Your task to perform on an android device: snooze an email in the gmail app Image 0: 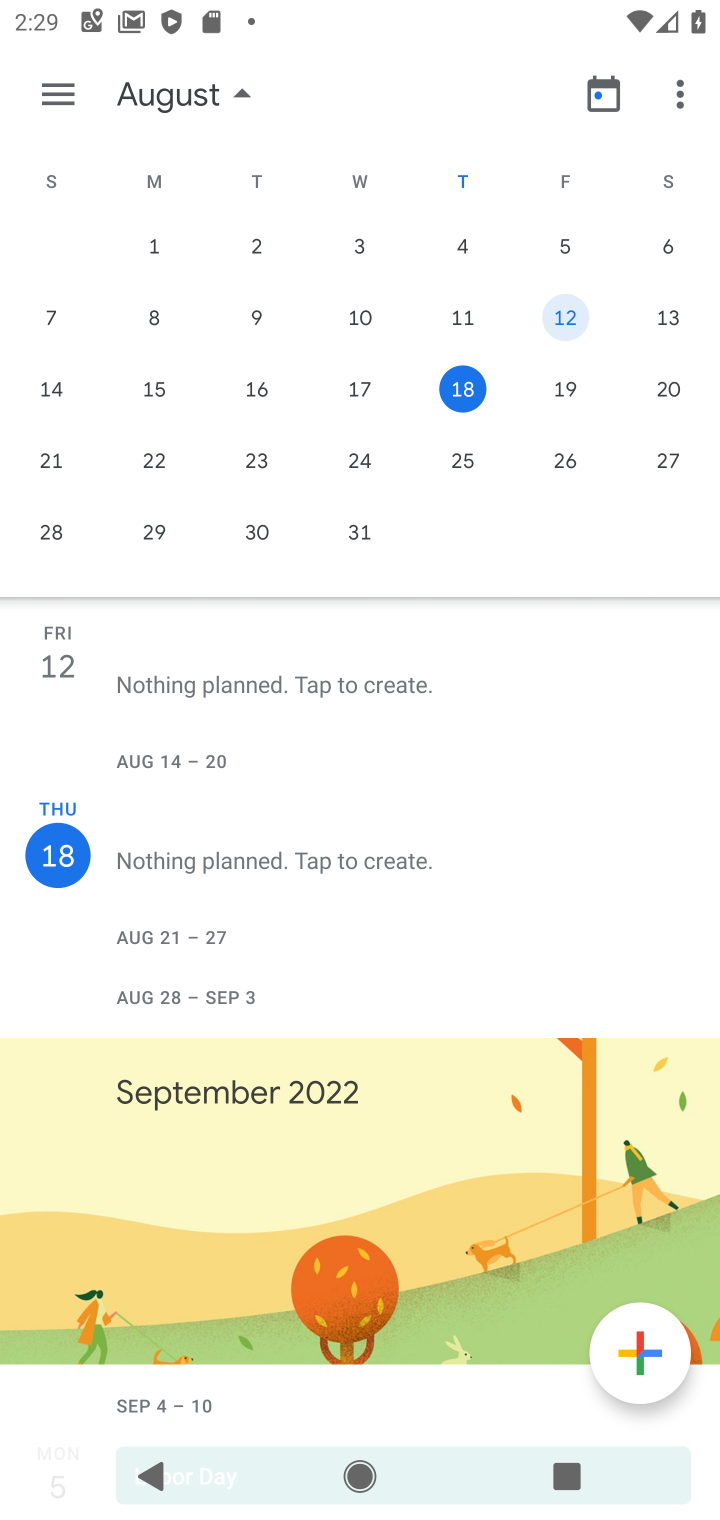
Step 0: press home button
Your task to perform on an android device: snooze an email in the gmail app Image 1: 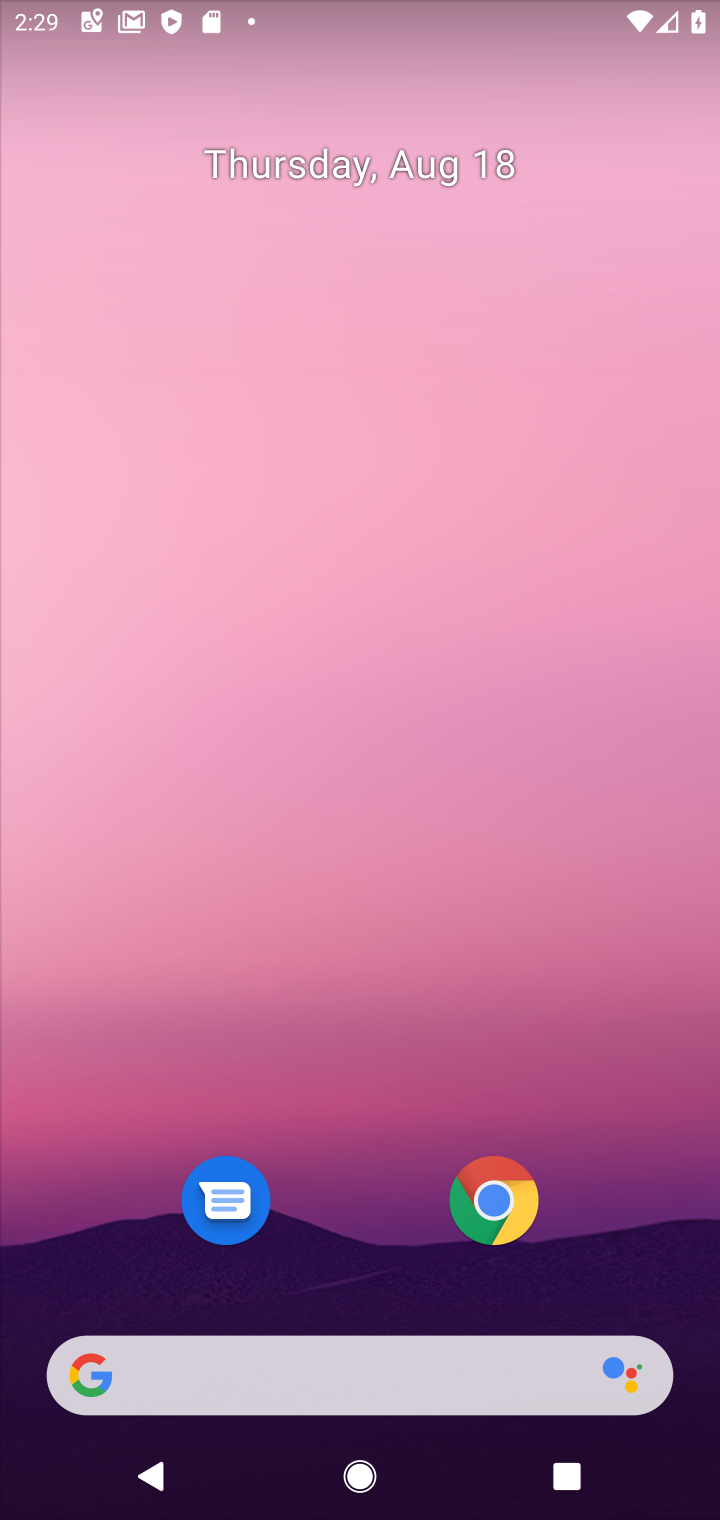
Step 1: drag from (410, 1145) to (540, 43)
Your task to perform on an android device: snooze an email in the gmail app Image 2: 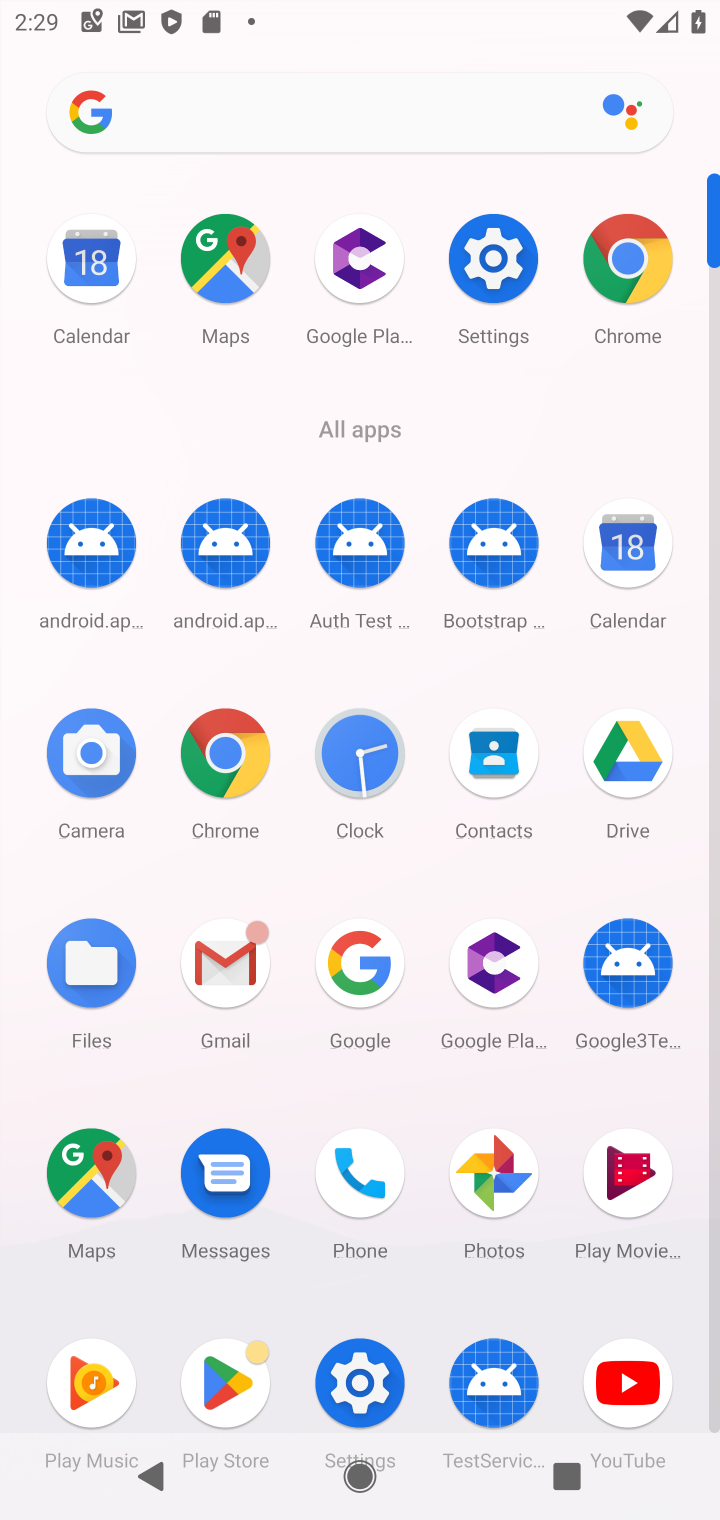
Step 2: click (220, 945)
Your task to perform on an android device: snooze an email in the gmail app Image 3: 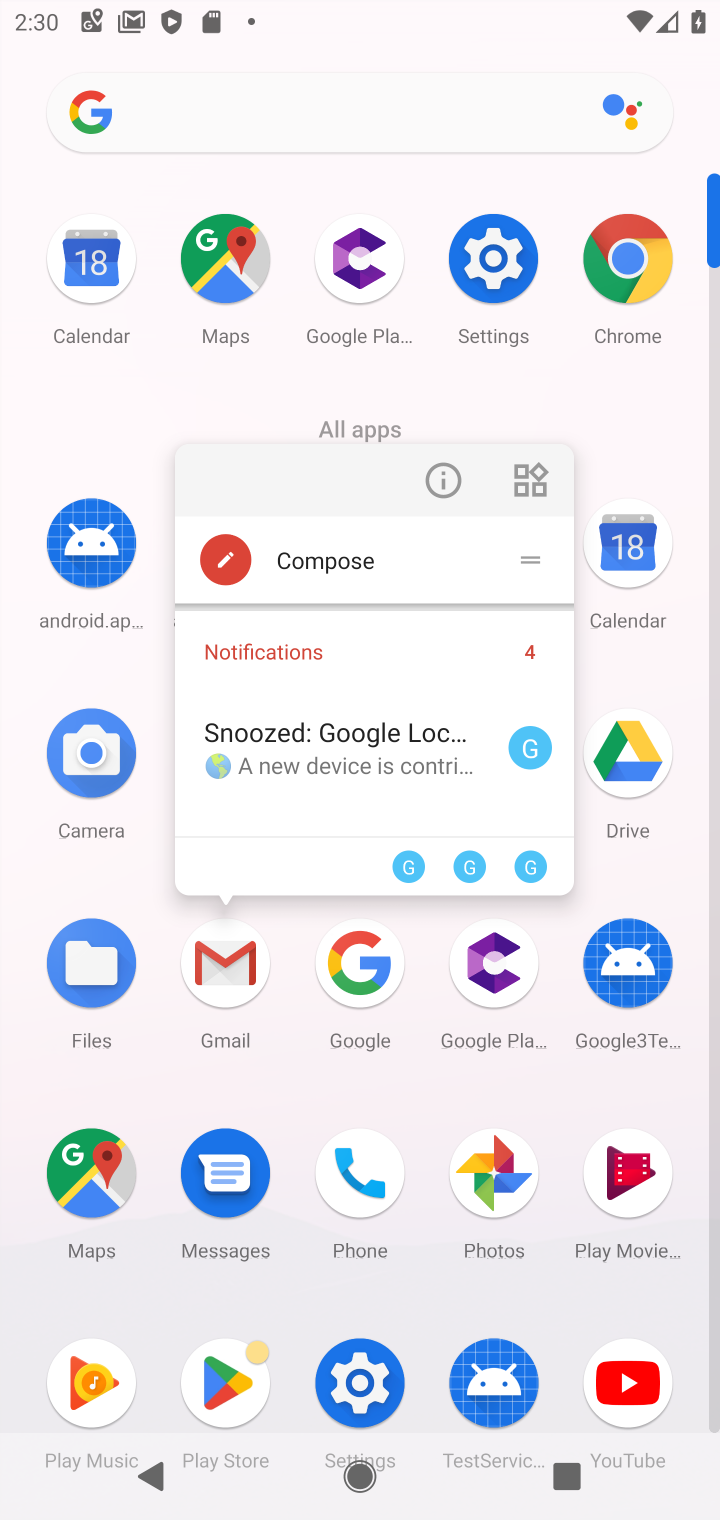
Step 3: click (593, 393)
Your task to perform on an android device: snooze an email in the gmail app Image 4: 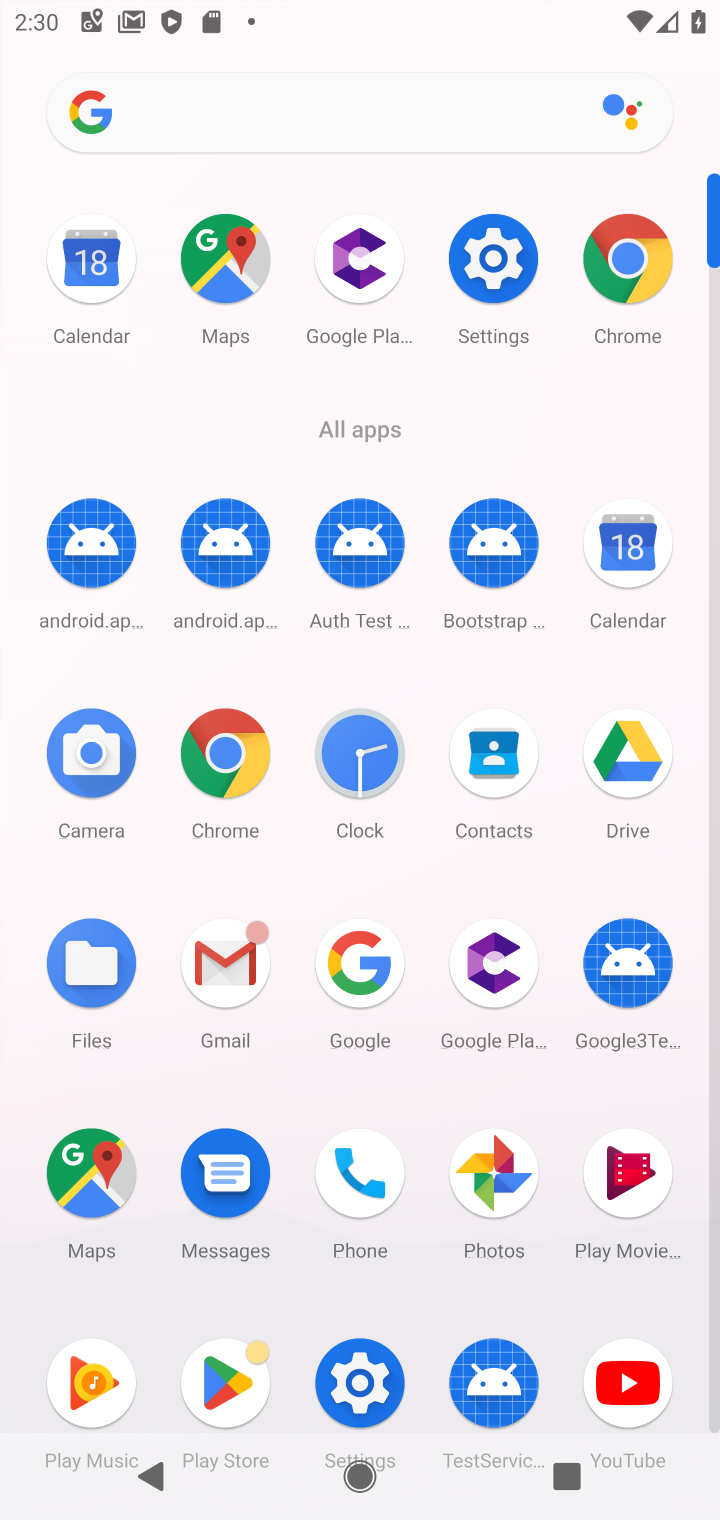
Step 4: click (243, 957)
Your task to perform on an android device: snooze an email in the gmail app Image 5: 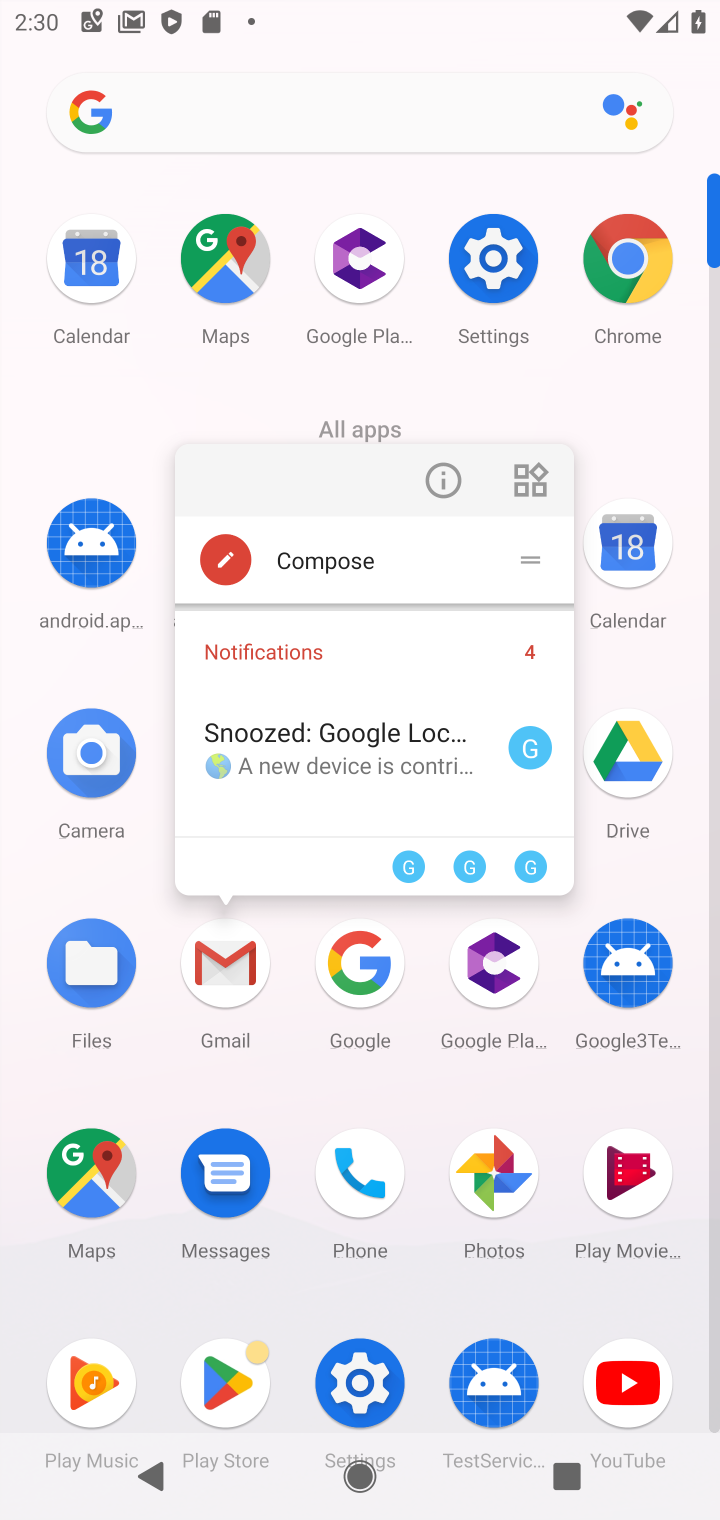
Step 5: click (240, 945)
Your task to perform on an android device: snooze an email in the gmail app Image 6: 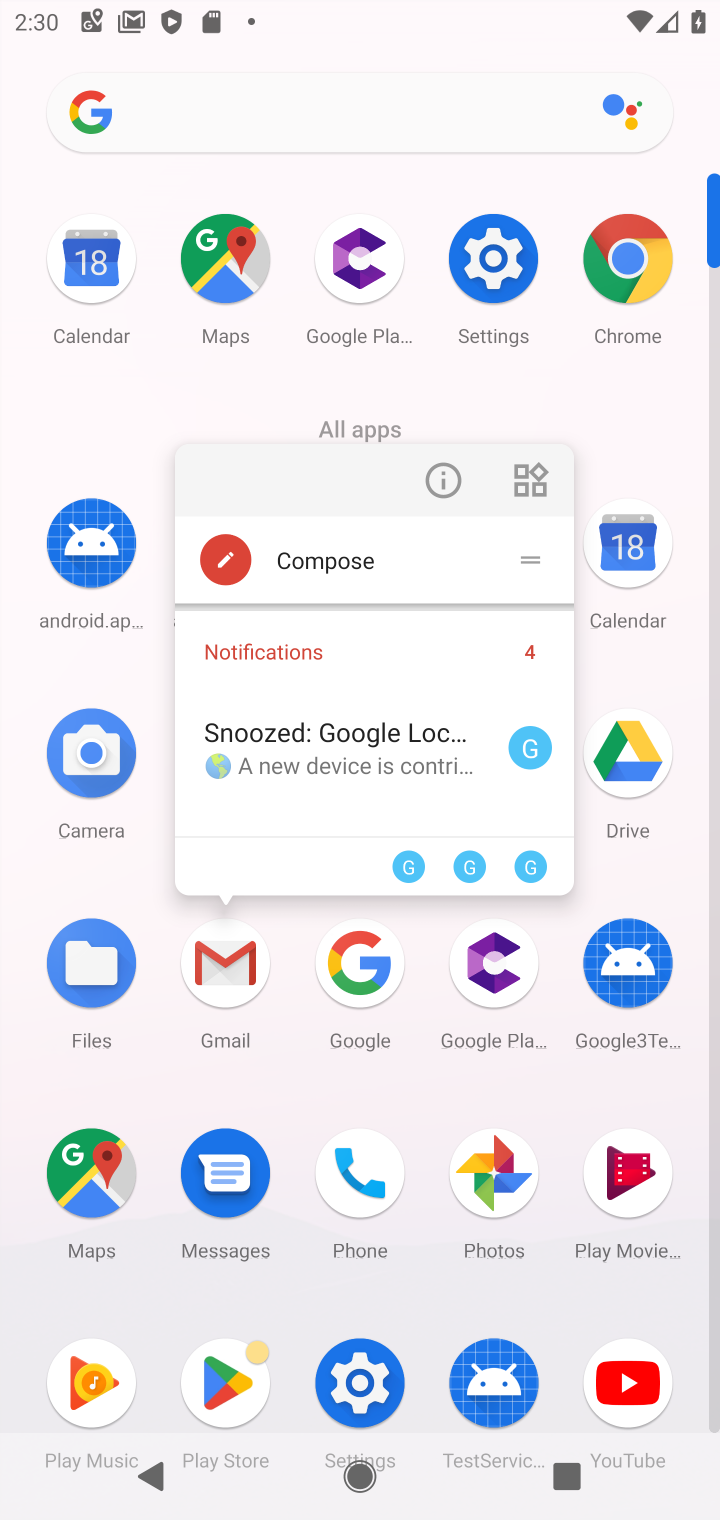
Step 6: click (240, 945)
Your task to perform on an android device: snooze an email in the gmail app Image 7: 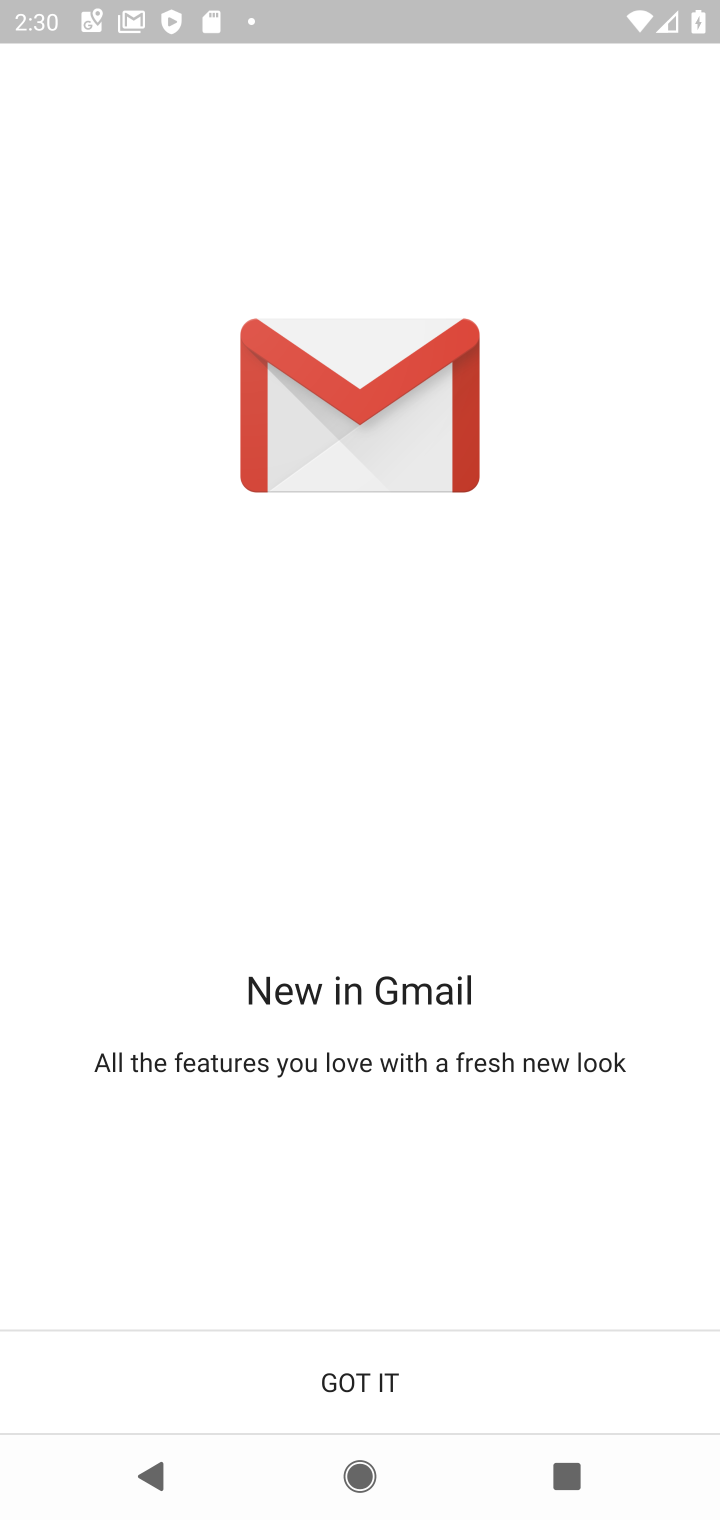
Step 7: click (436, 1377)
Your task to perform on an android device: snooze an email in the gmail app Image 8: 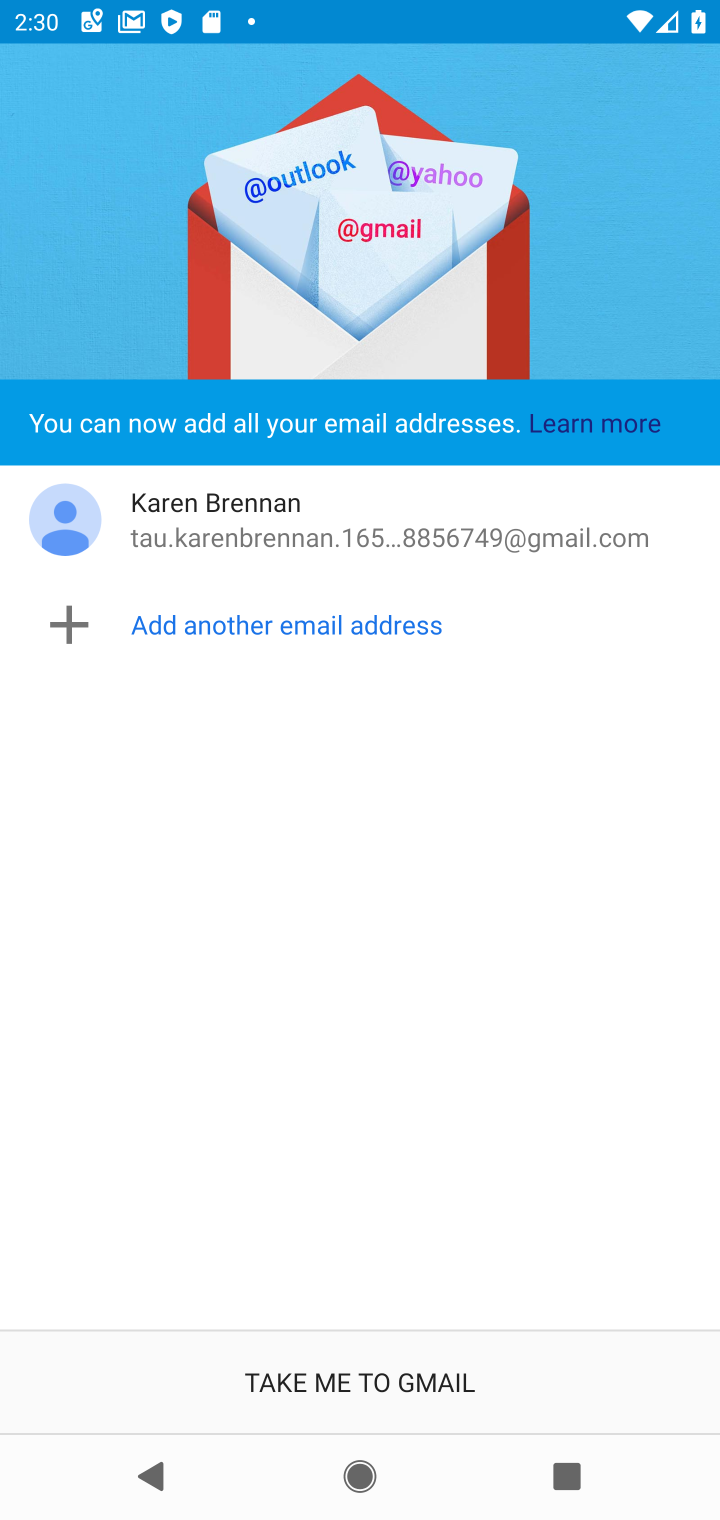
Step 8: click (501, 1375)
Your task to perform on an android device: snooze an email in the gmail app Image 9: 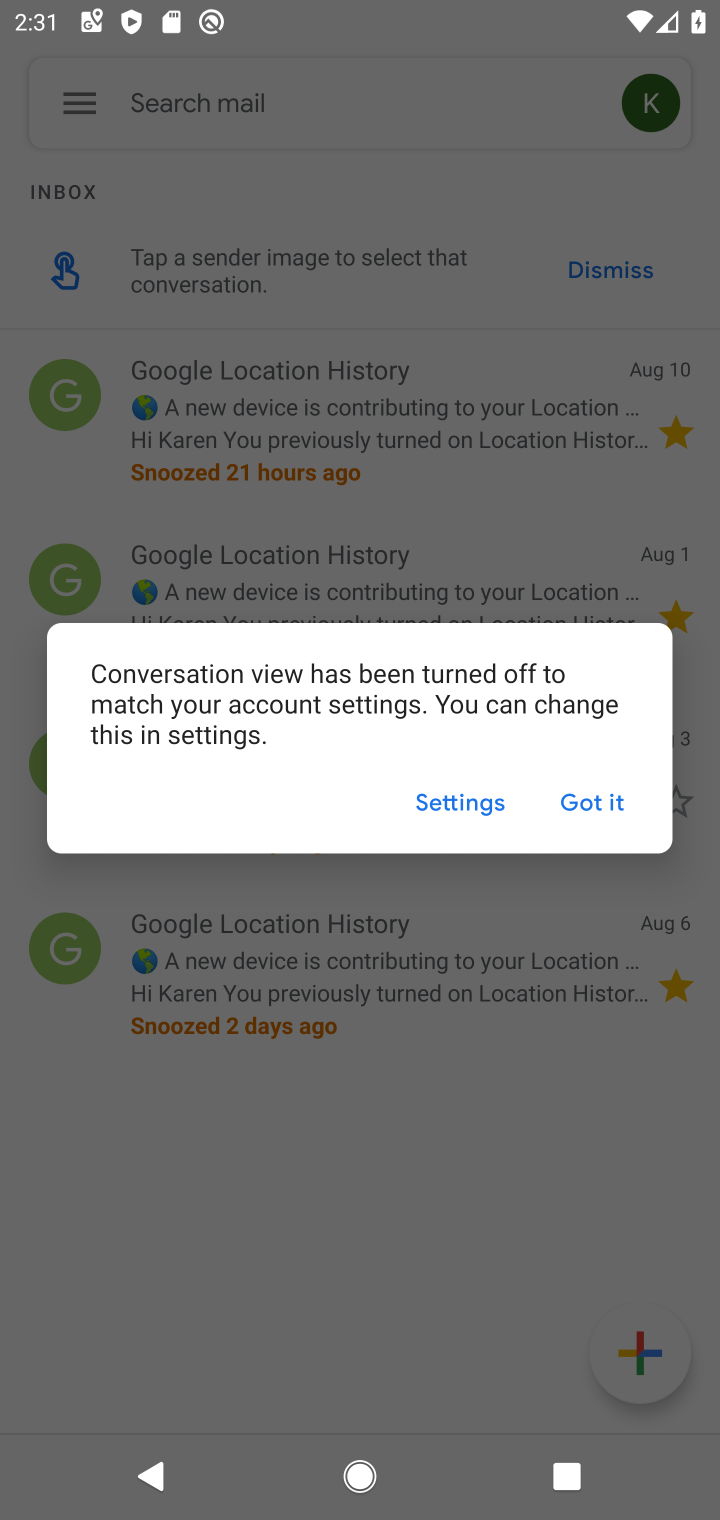
Step 9: click (621, 808)
Your task to perform on an android device: snooze an email in the gmail app Image 10: 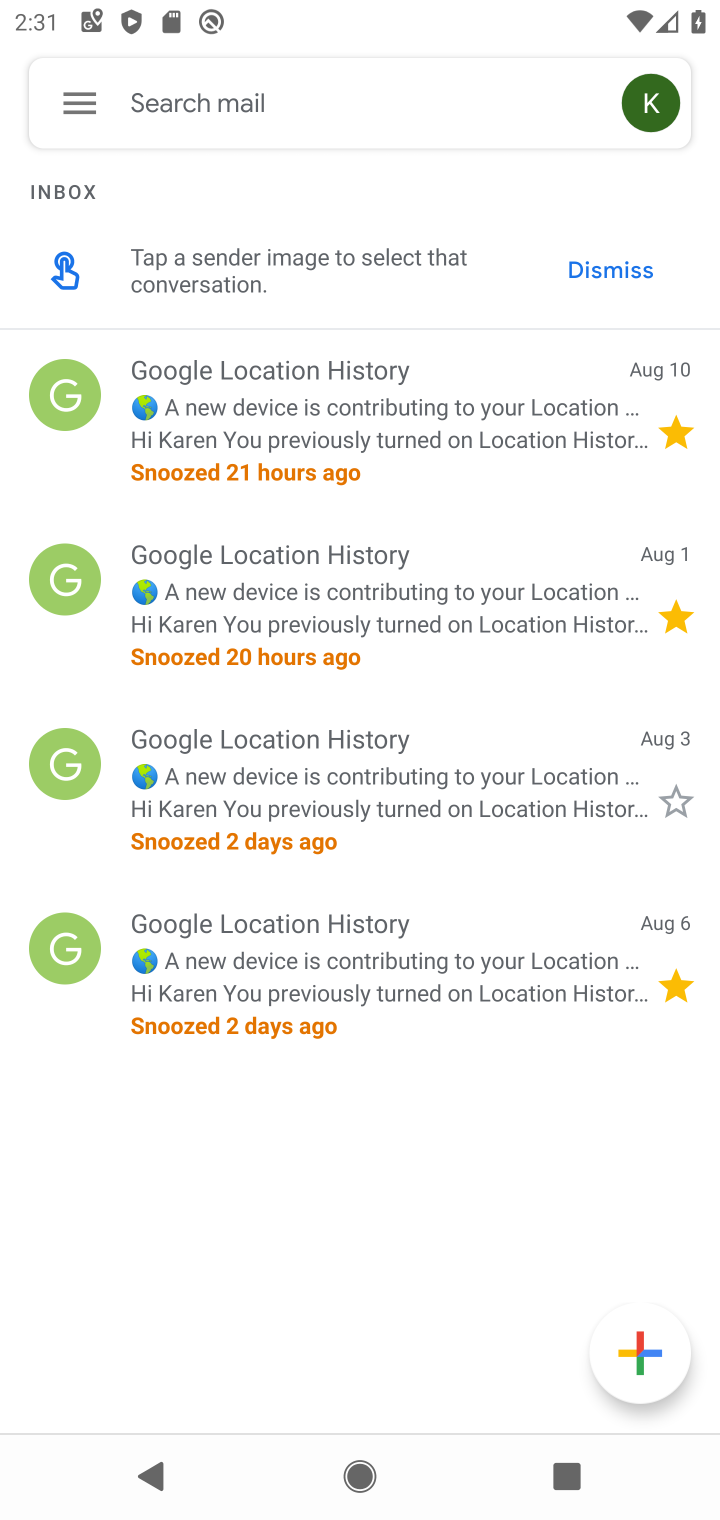
Step 10: click (80, 100)
Your task to perform on an android device: snooze an email in the gmail app Image 11: 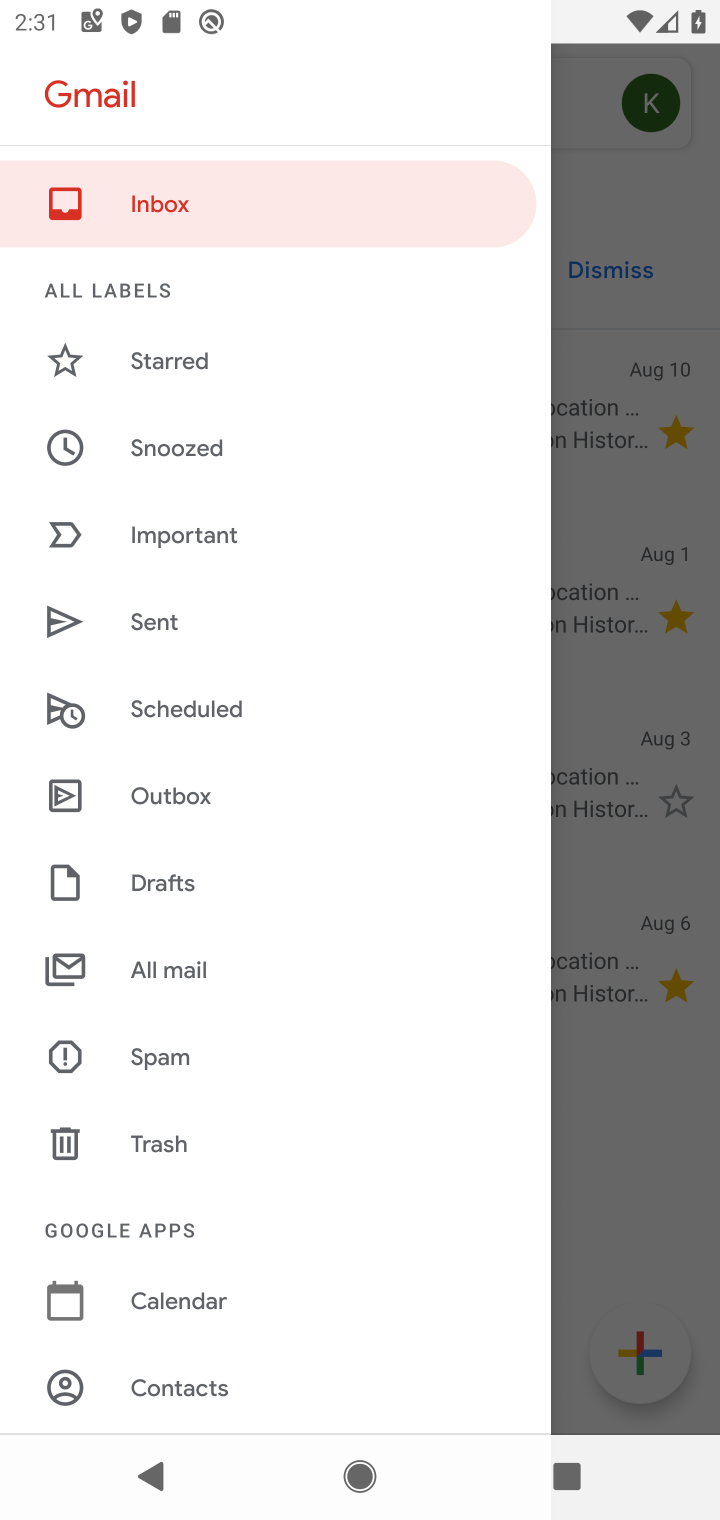
Step 11: drag from (327, 1166) to (260, 1037)
Your task to perform on an android device: snooze an email in the gmail app Image 12: 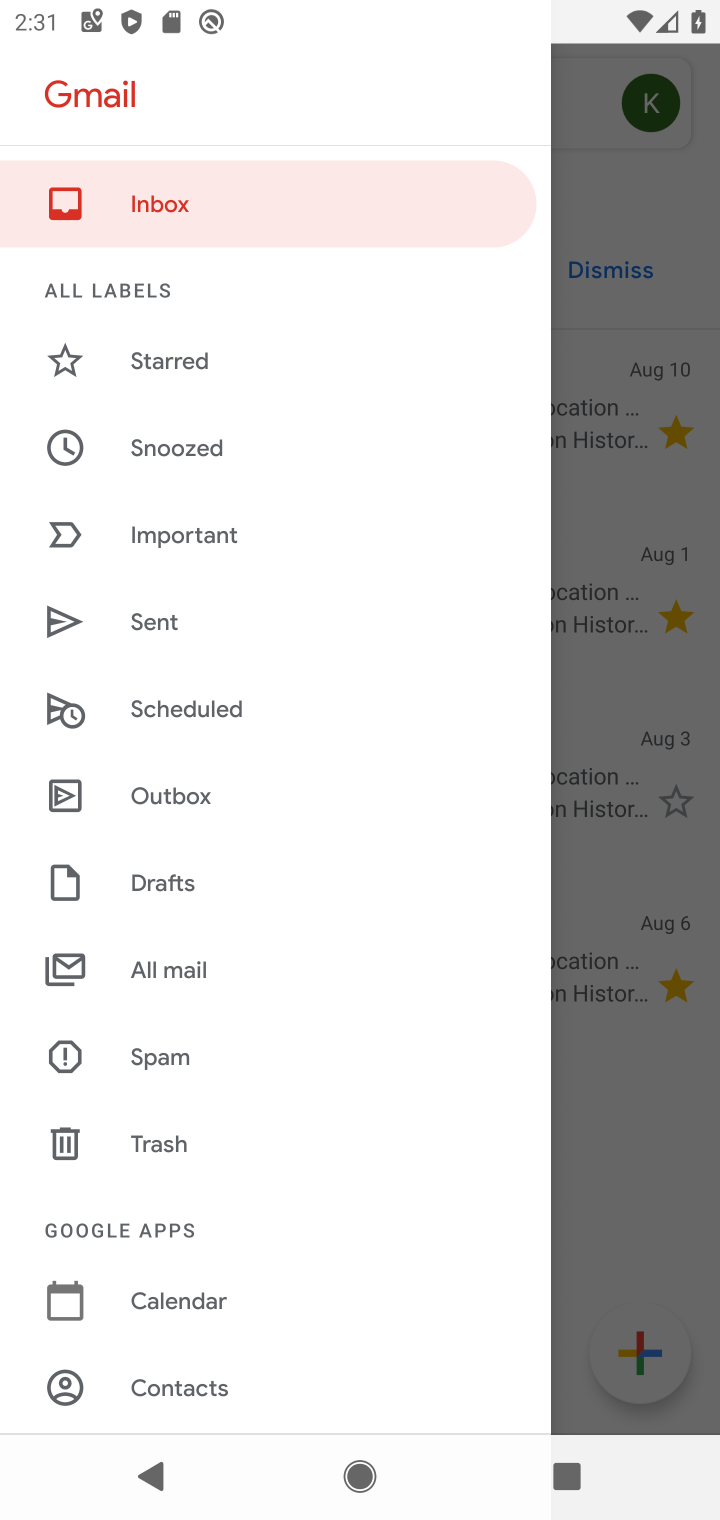
Step 12: click (170, 447)
Your task to perform on an android device: snooze an email in the gmail app Image 13: 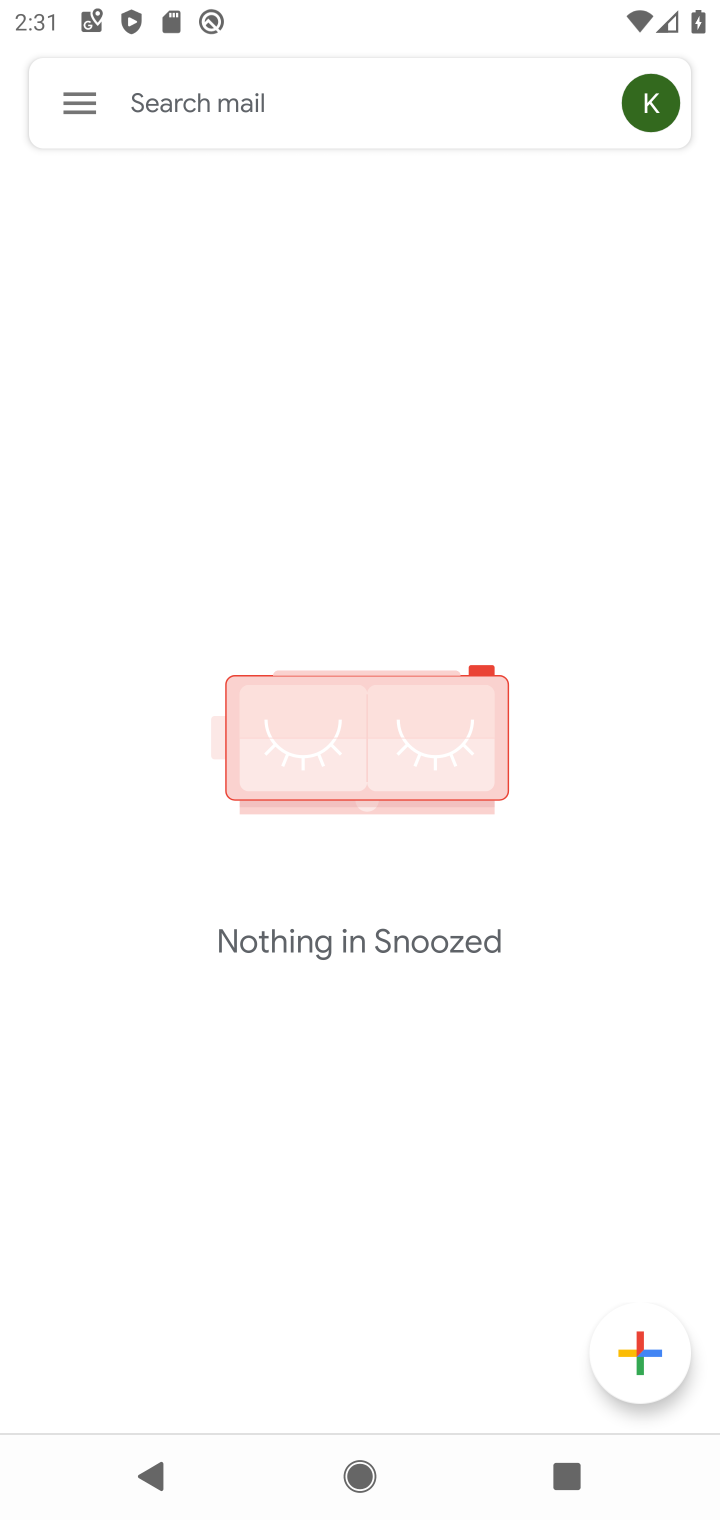
Step 13: task complete